Your task to perform on an android device: Open calendar and show me the third week of next month Image 0: 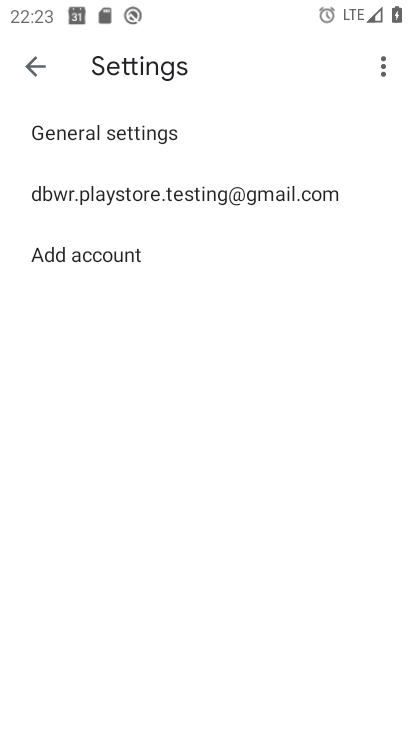
Step 0: press home button
Your task to perform on an android device: Open calendar and show me the third week of next month Image 1: 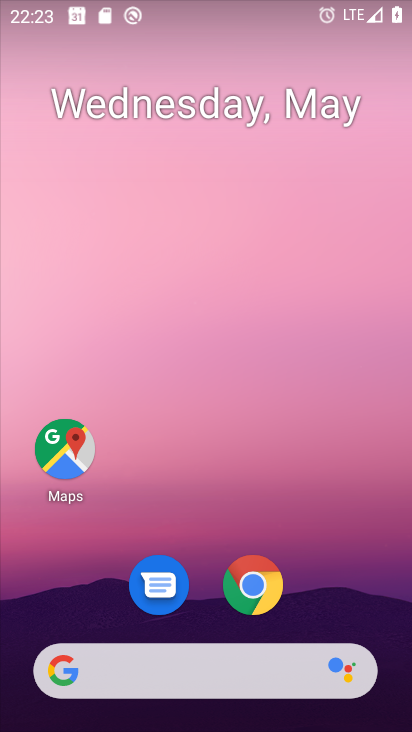
Step 1: drag from (242, 464) to (288, 36)
Your task to perform on an android device: Open calendar and show me the third week of next month Image 2: 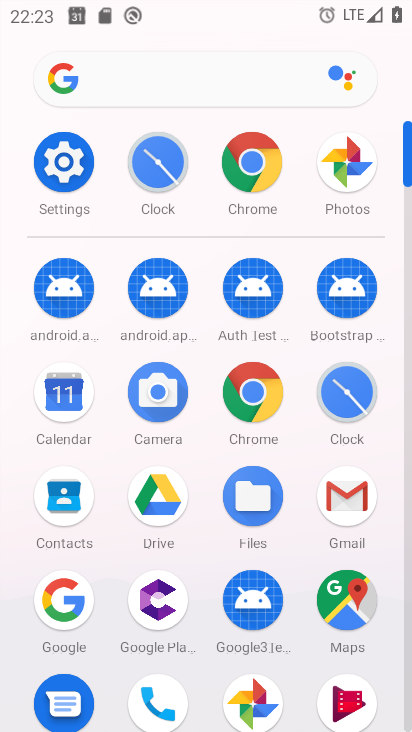
Step 2: click (65, 392)
Your task to perform on an android device: Open calendar and show me the third week of next month Image 3: 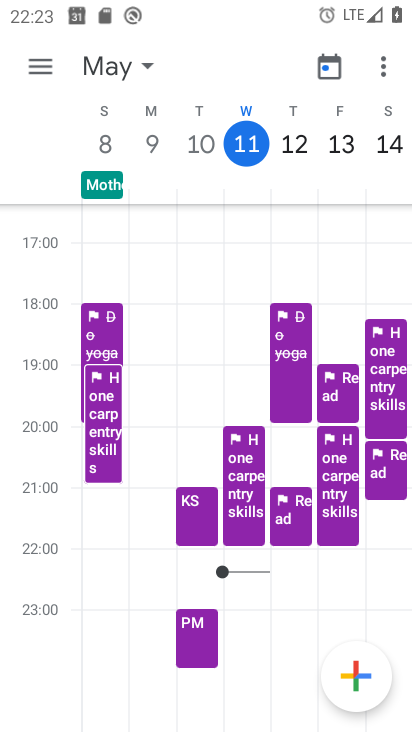
Step 3: click (35, 55)
Your task to perform on an android device: Open calendar and show me the third week of next month Image 4: 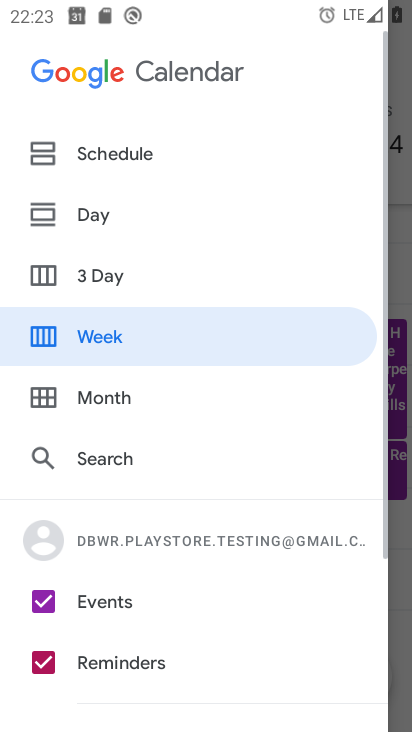
Step 4: click (110, 388)
Your task to perform on an android device: Open calendar and show me the third week of next month Image 5: 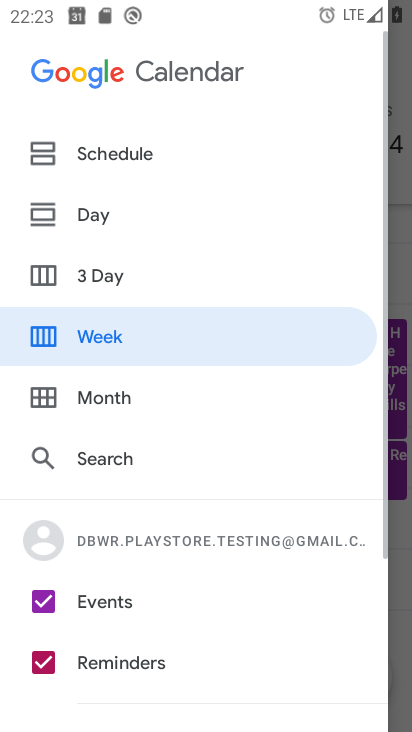
Step 5: click (46, 392)
Your task to perform on an android device: Open calendar and show me the third week of next month Image 6: 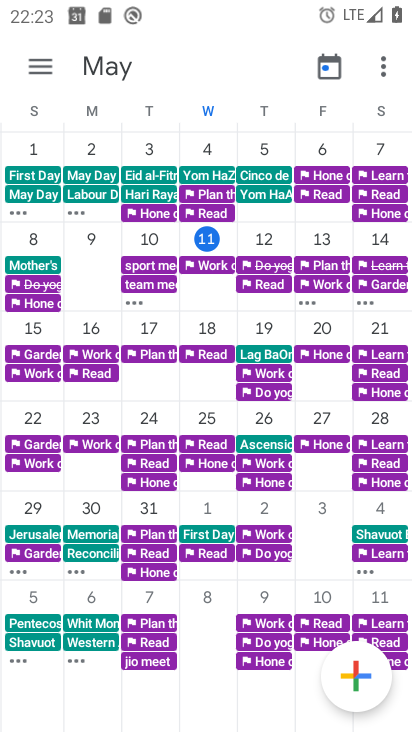
Step 6: drag from (390, 411) to (1, 394)
Your task to perform on an android device: Open calendar and show me the third week of next month Image 7: 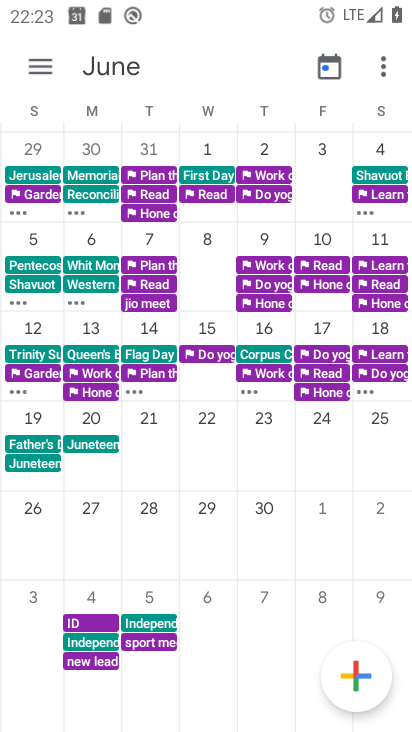
Step 7: click (37, 424)
Your task to perform on an android device: Open calendar and show me the third week of next month Image 8: 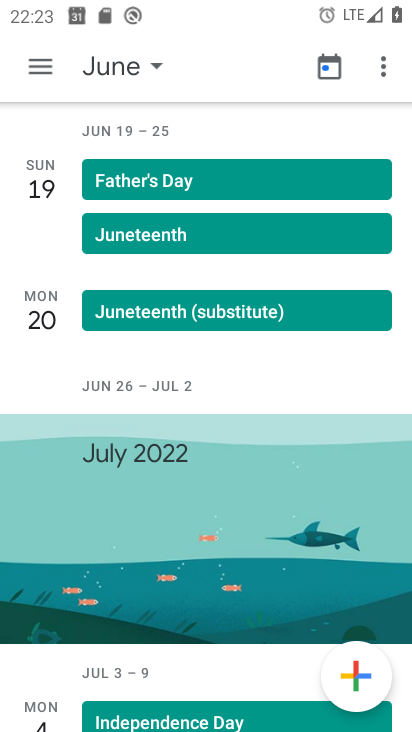
Step 8: click (38, 59)
Your task to perform on an android device: Open calendar and show me the third week of next month Image 9: 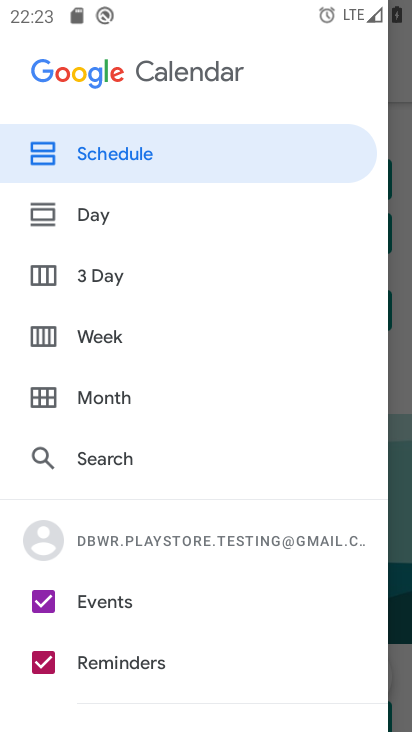
Step 9: click (52, 330)
Your task to perform on an android device: Open calendar and show me the third week of next month Image 10: 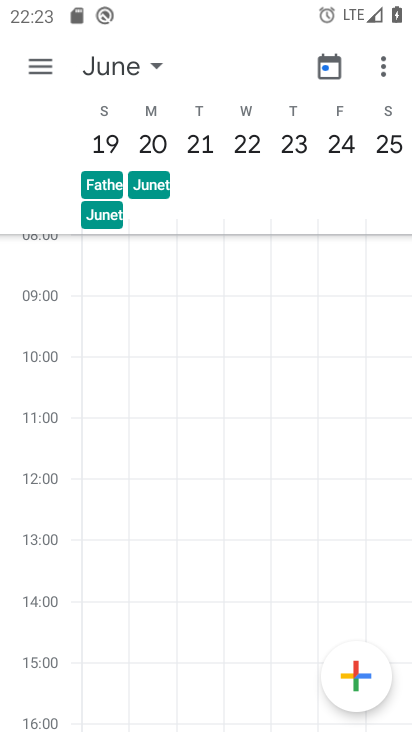
Step 10: task complete